Your task to perform on an android device: delete location history Image 0: 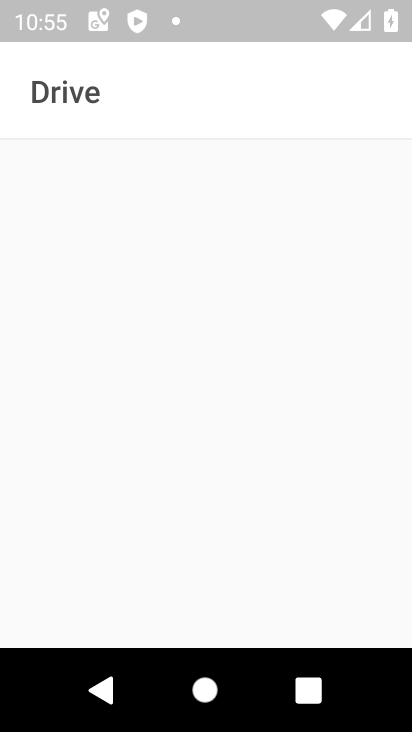
Step 0: press home button
Your task to perform on an android device: delete location history Image 1: 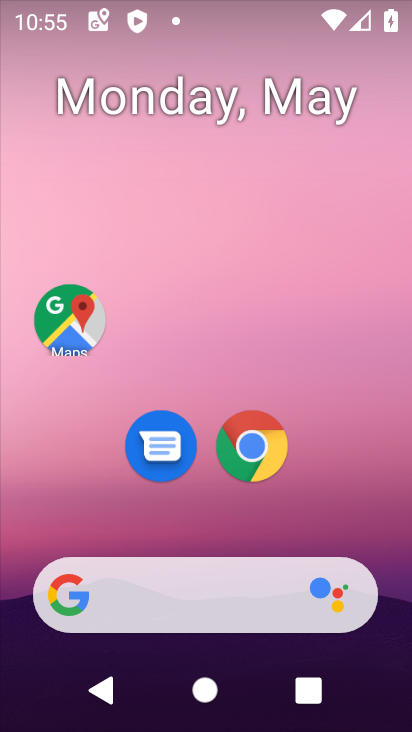
Step 1: drag from (253, 584) to (219, 130)
Your task to perform on an android device: delete location history Image 2: 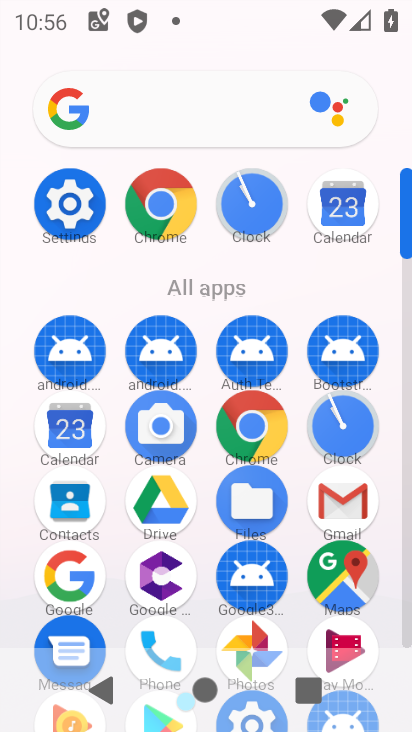
Step 2: click (328, 603)
Your task to perform on an android device: delete location history Image 3: 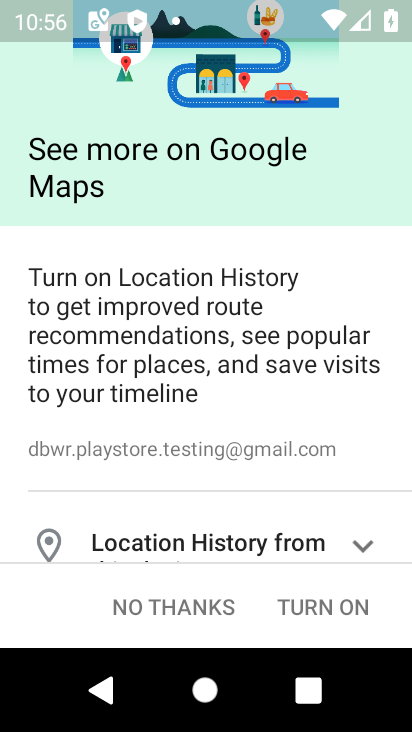
Step 3: click (352, 591)
Your task to perform on an android device: delete location history Image 4: 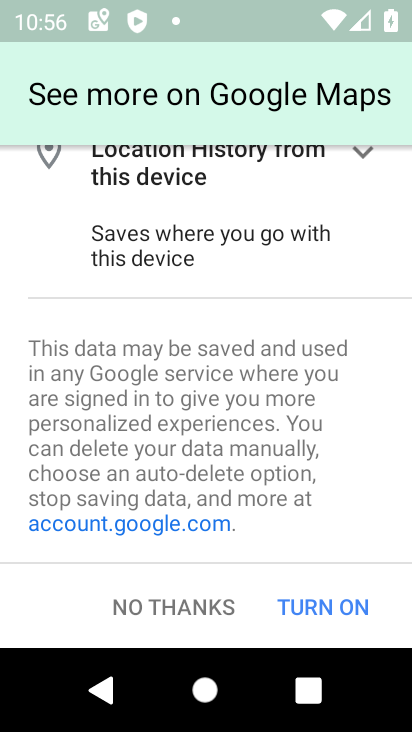
Step 4: click (337, 600)
Your task to perform on an android device: delete location history Image 5: 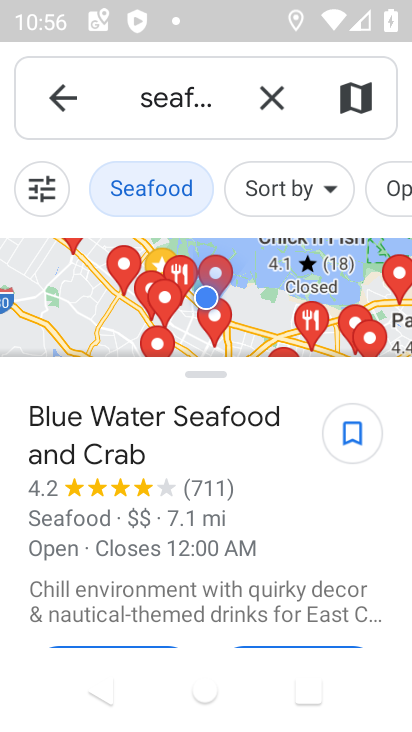
Step 5: click (55, 110)
Your task to perform on an android device: delete location history Image 6: 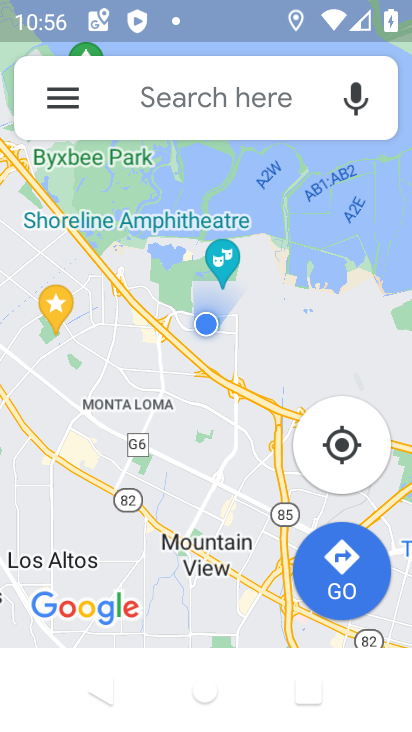
Step 6: click (59, 111)
Your task to perform on an android device: delete location history Image 7: 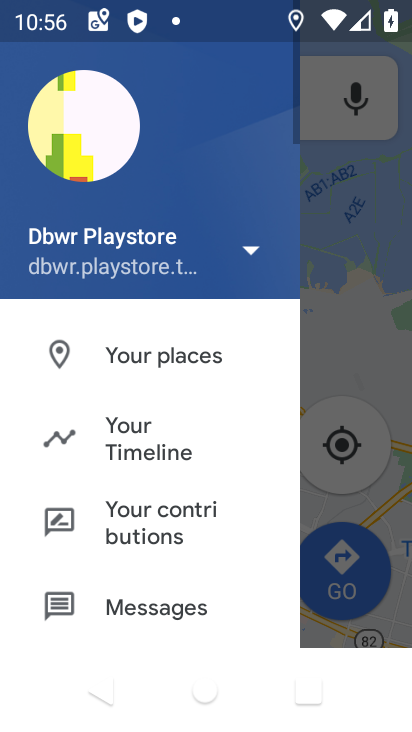
Step 7: click (160, 455)
Your task to perform on an android device: delete location history Image 8: 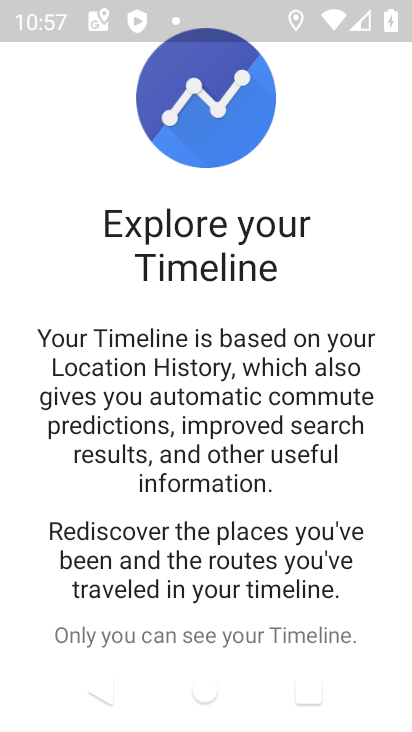
Step 8: drag from (241, 550) to (255, 151)
Your task to perform on an android device: delete location history Image 9: 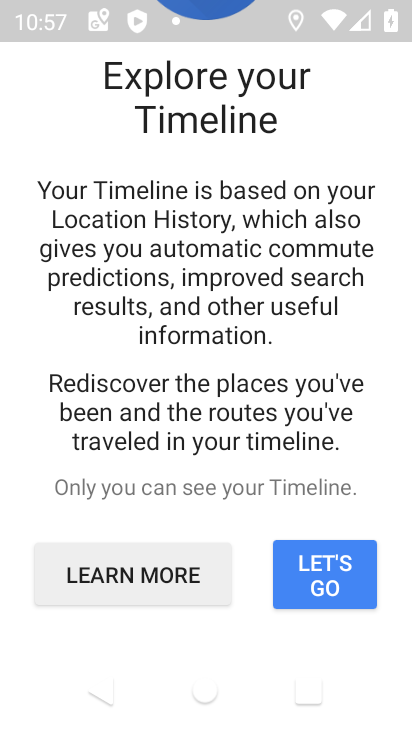
Step 9: click (308, 583)
Your task to perform on an android device: delete location history Image 10: 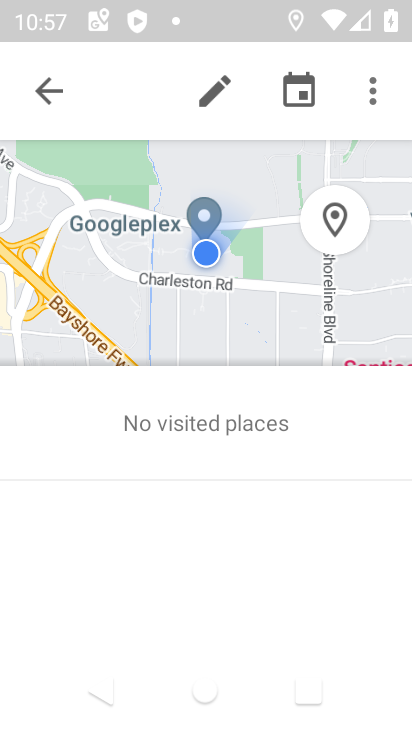
Step 10: click (365, 103)
Your task to perform on an android device: delete location history Image 11: 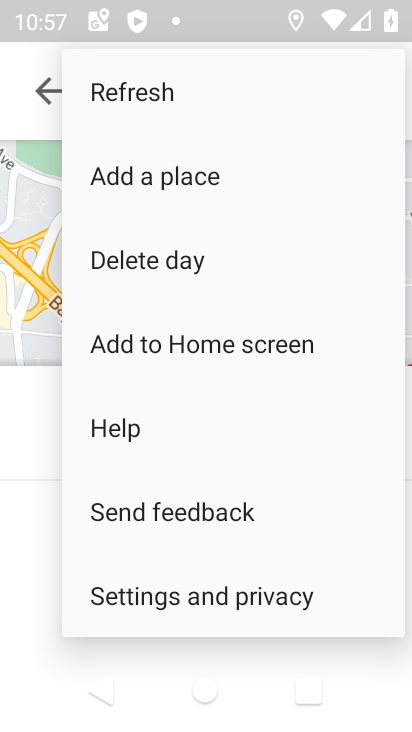
Step 11: click (243, 580)
Your task to perform on an android device: delete location history Image 12: 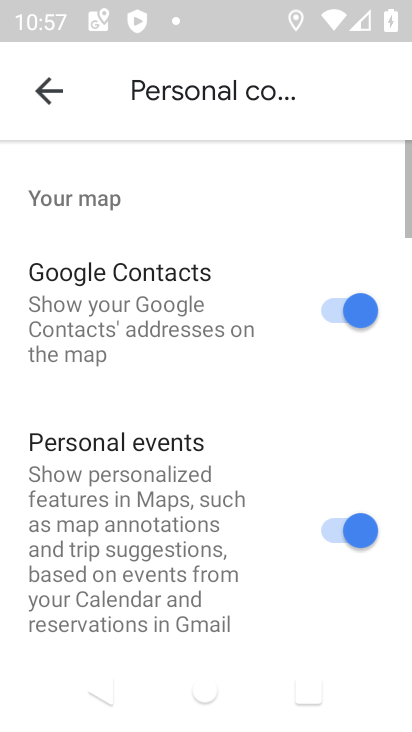
Step 12: drag from (200, 538) to (199, 47)
Your task to perform on an android device: delete location history Image 13: 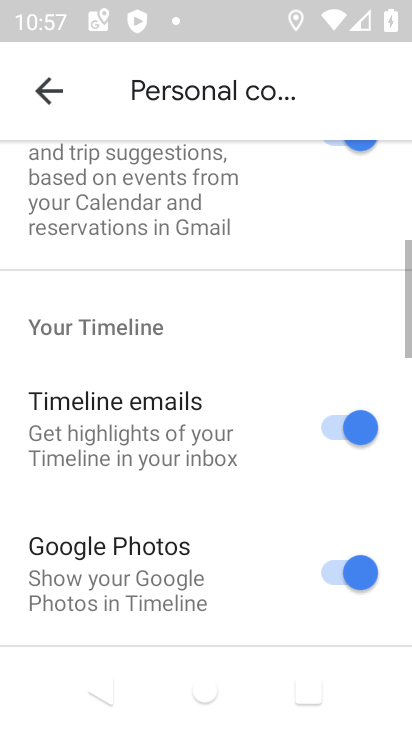
Step 13: drag from (254, 549) to (243, 26)
Your task to perform on an android device: delete location history Image 14: 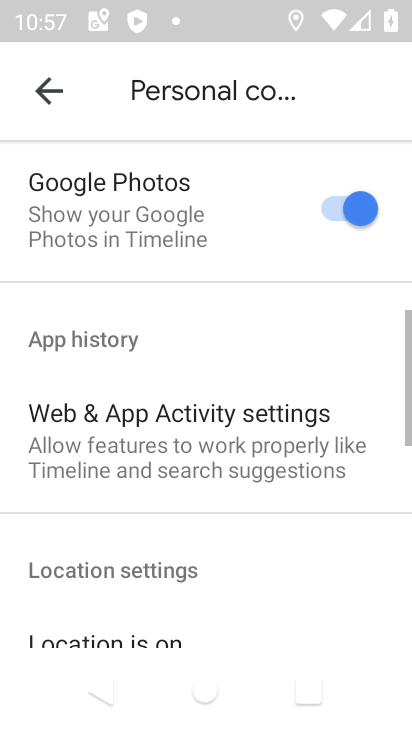
Step 14: drag from (176, 549) to (213, 16)
Your task to perform on an android device: delete location history Image 15: 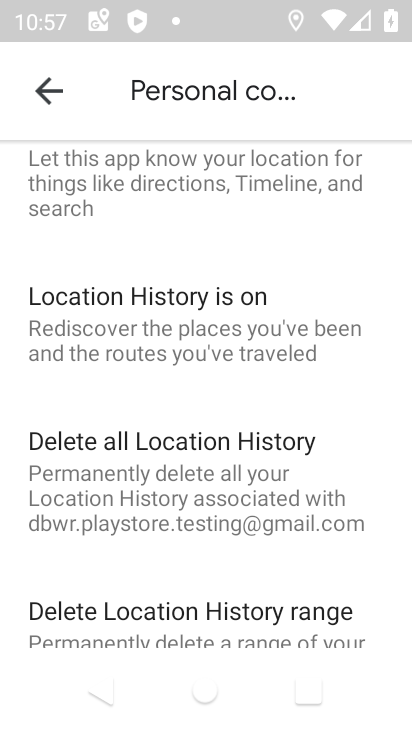
Step 15: click (198, 457)
Your task to perform on an android device: delete location history Image 16: 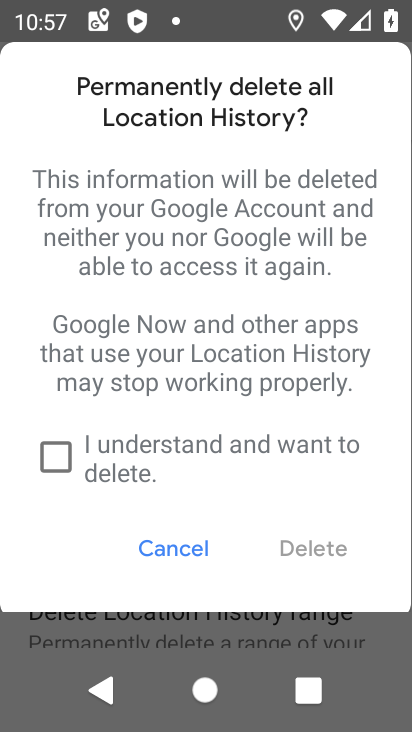
Step 16: click (116, 443)
Your task to perform on an android device: delete location history Image 17: 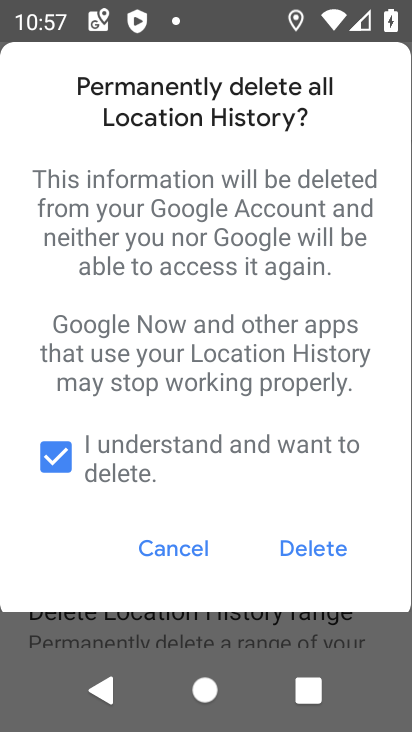
Step 17: click (318, 539)
Your task to perform on an android device: delete location history Image 18: 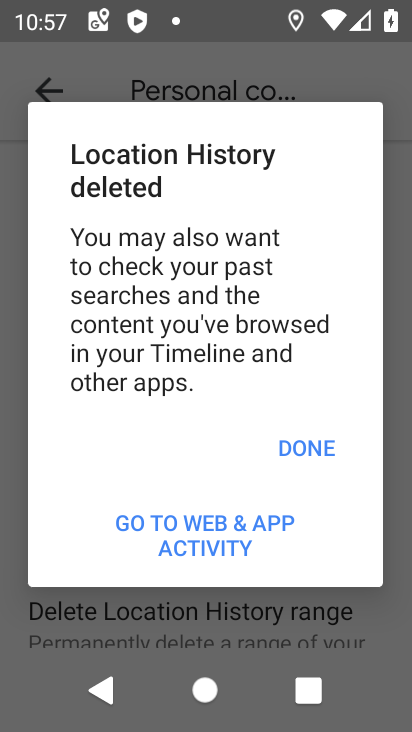
Step 18: click (294, 446)
Your task to perform on an android device: delete location history Image 19: 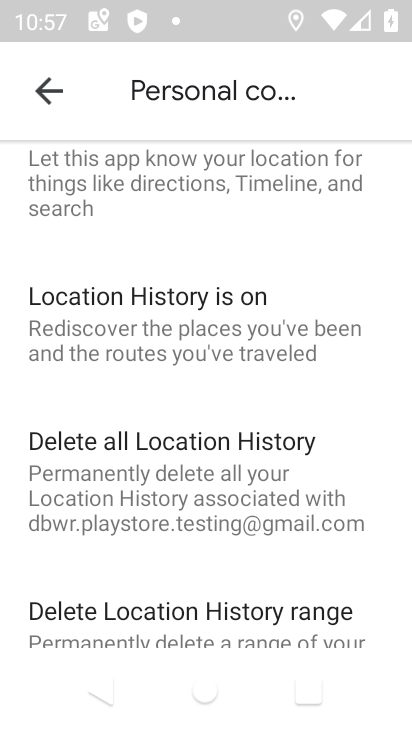
Step 19: task complete